Your task to perform on an android device: open chrome and create a bookmark for the current page Image 0: 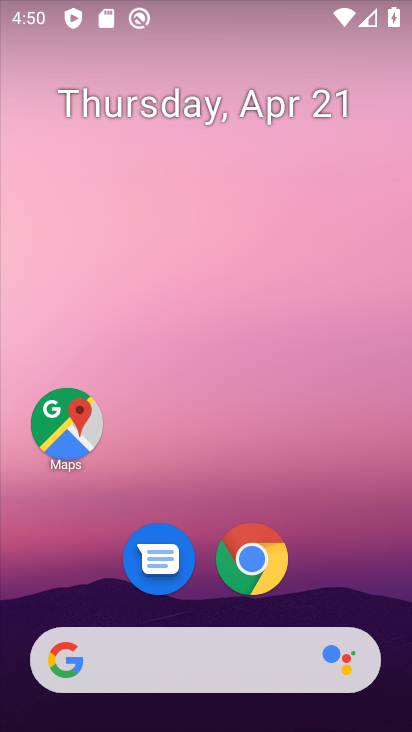
Step 0: drag from (377, 522) to (407, 127)
Your task to perform on an android device: open chrome and create a bookmark for the current page Image 1: 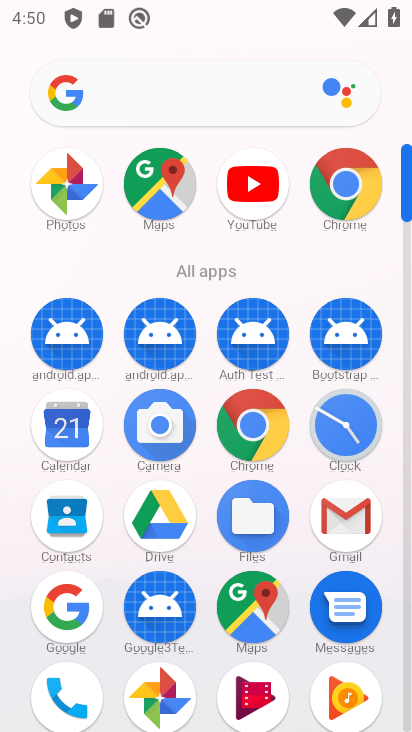
Step 1: click (365, 205)
Your task to perform on an android device: open chrome and create a bookmark for the current page Image 2: 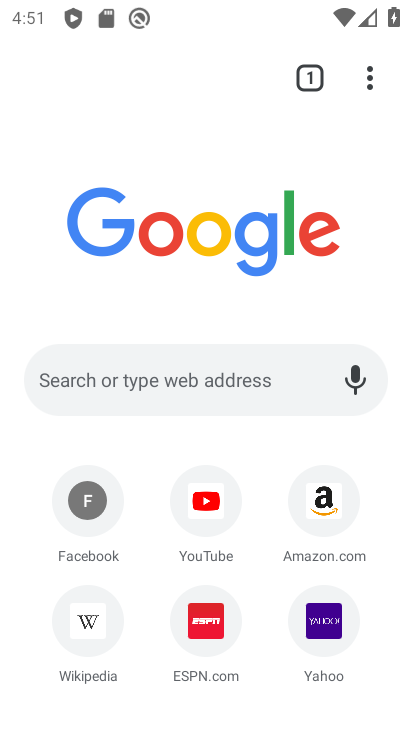
Step 2: drag from (367, 77) to (130, 261)
Your task to perform on an android device: open chrome and create a bookmark for the current page Image 3: 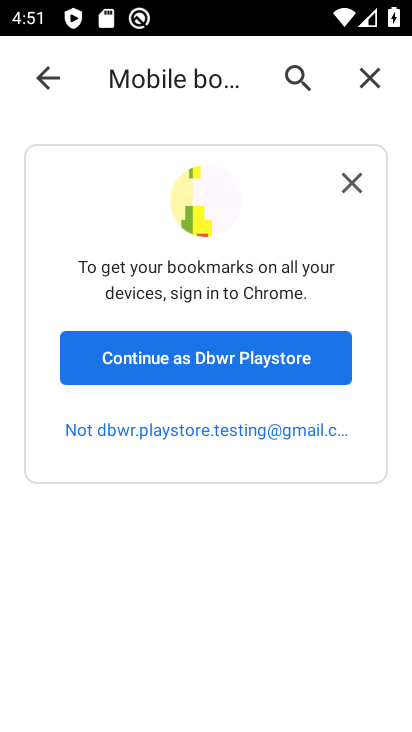
Step 3: click (198, 370)
Your task to perform on an android device: open chrome and create a bookmark for the current page Image 4: 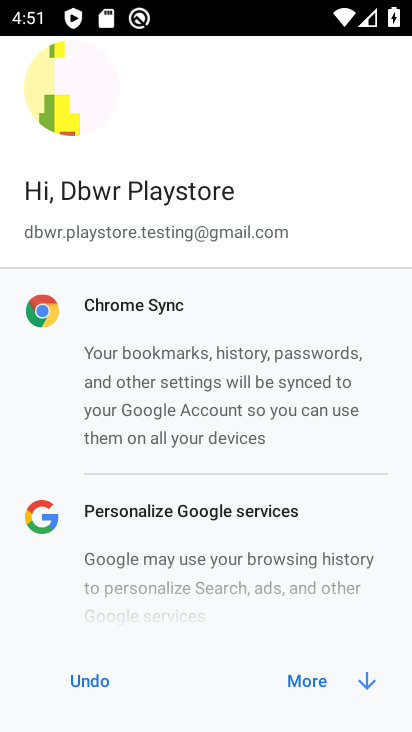
Step 4: click (304, 681)
Your task to perform on an android device: open chrome and create a bookmark for the current page Image 5: 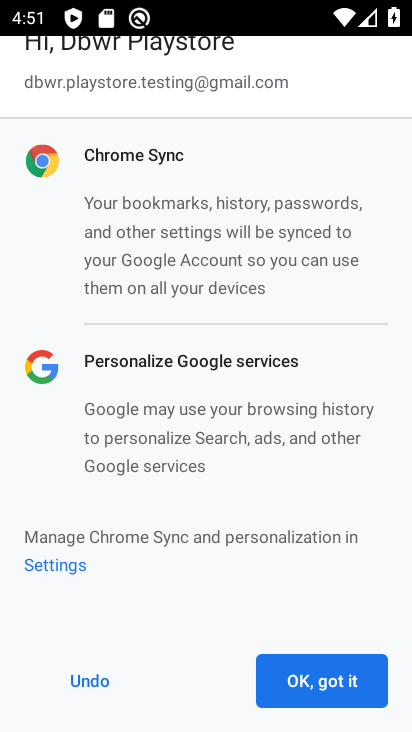
Step 5: click (304, 679)
Your task to perform on an android device: open chrome and create a bookmark for the current page Image 6: 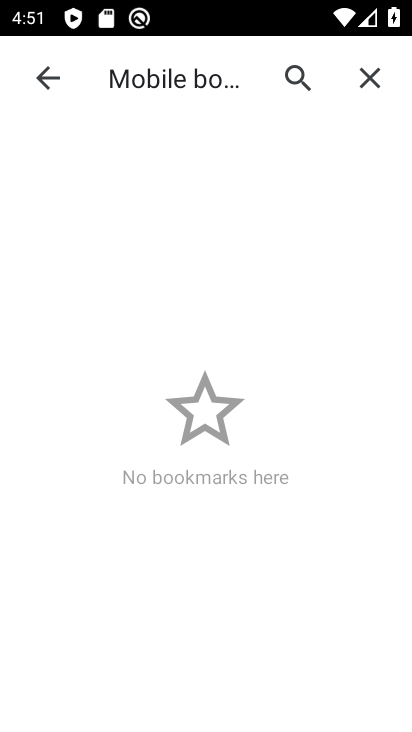
Step 6: task complete